Your task to perform on an android device: visit the assistant section in the google photos Image 0: 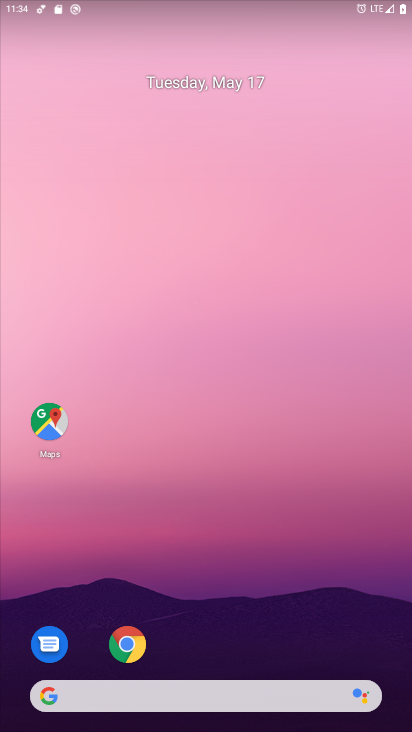
Step 0: drag from (205, 646) to (254, 48)
Your task to perform on an android device: visit the assistant section in the google photos Image 1: 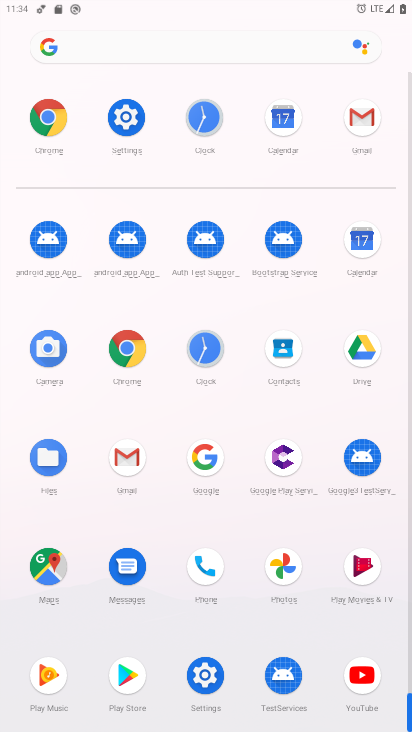
Step 1: click (280, 561)
Your task to perform on an android device: visit the assistant section in the google photos Image 2: 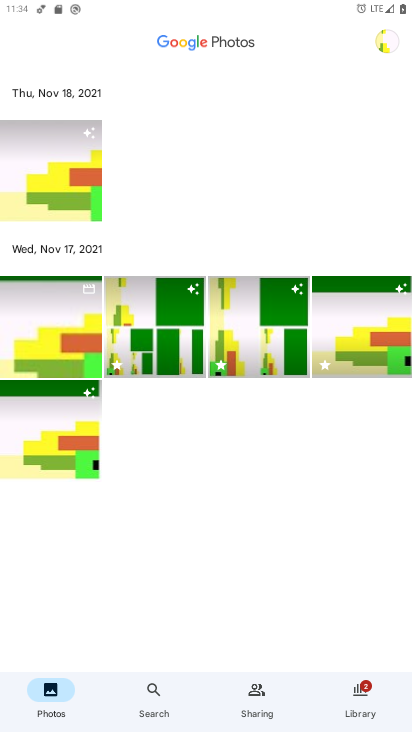
Step 2: click (150, 691)
Your task to perform on an android device: visit the assistant section in the google photos Image 3: 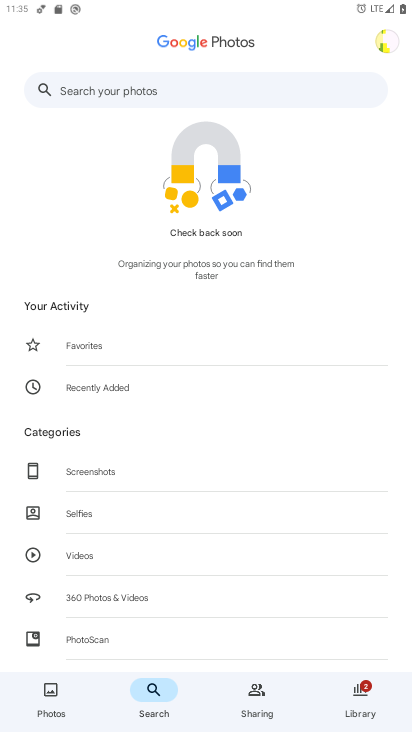
Step 3: click (120, 92)
Your task to perform on an android device: visit the assistant section in the google photos Image 4: 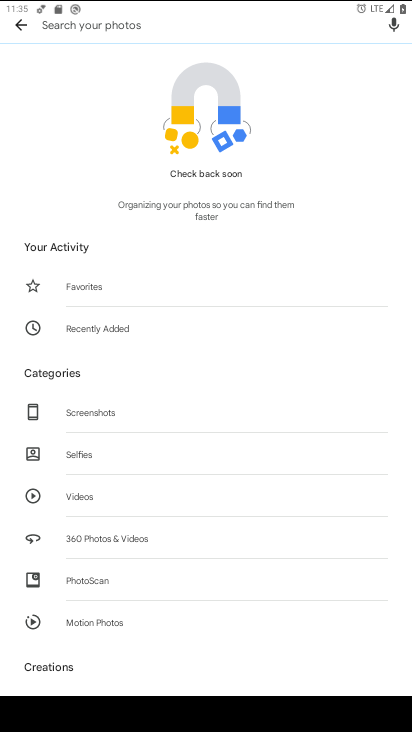
Step 4: type "assistance"
Your task to perform on an android device: visit the assistant section in the google photos Image 5: 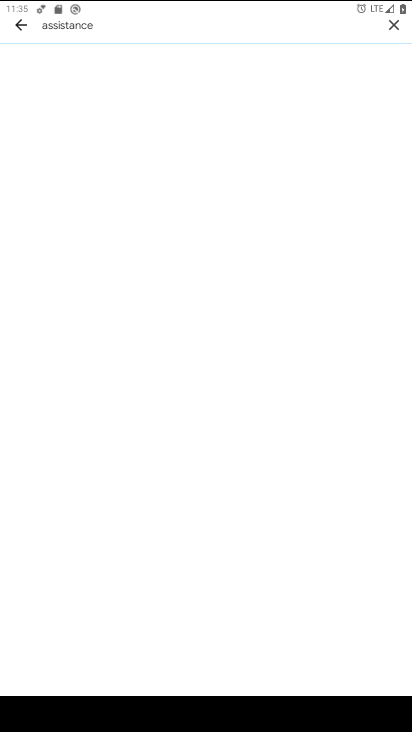
Step 5: task complete